Your task to perform on an android device: Open location settings Image 0: 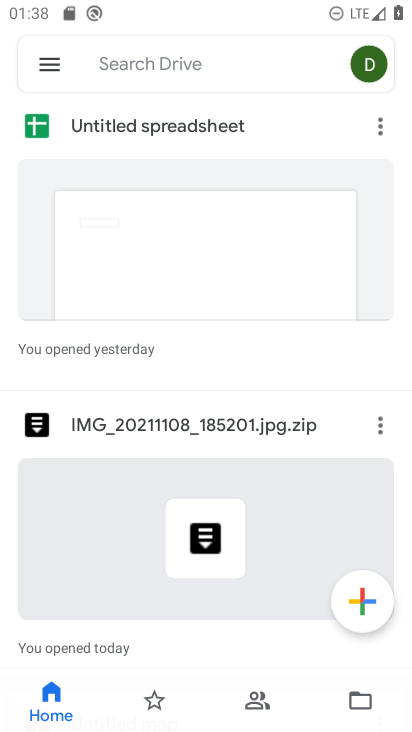
Step 0: press home button
Your task to perform on an android device: Open location settings Image 1: 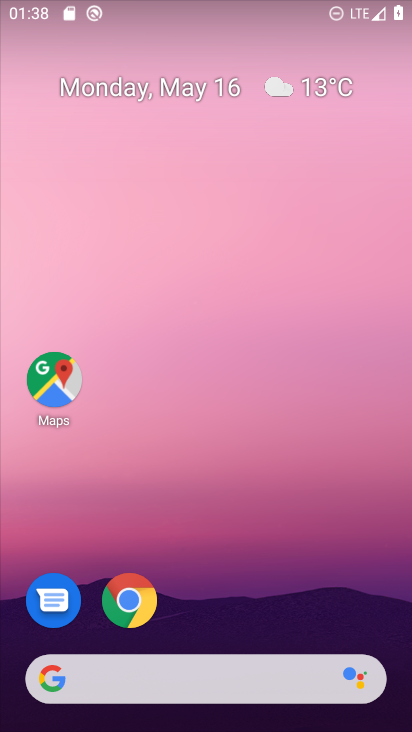
Step 1: drag from (220, 632) to (195, 190)
Your task to perform on an android device: Open location settings Image 2: 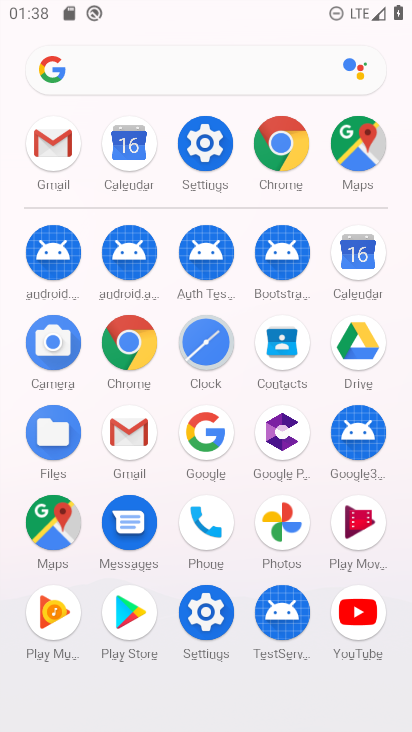
Step 2: click (208, 603)
Your task to perform on an android device: Open location settings Image 3: 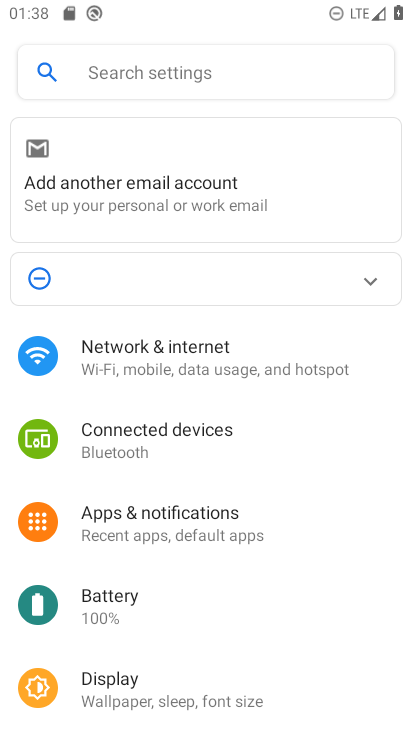
Step 3: drag from (194, 688) to (208, 148)
Your task to perform on an android device: Open location settings Image 4: 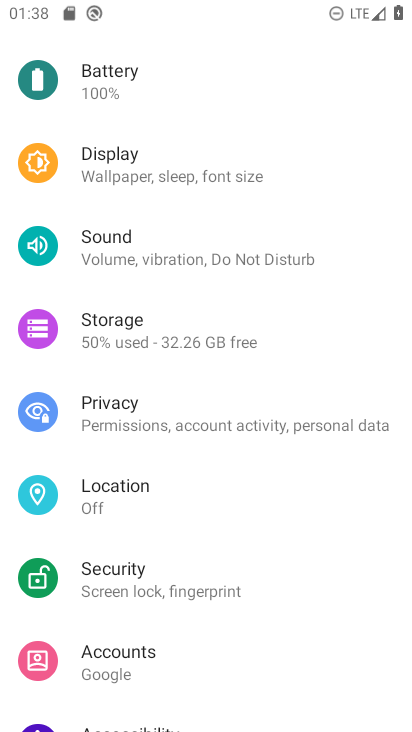
Step 4: click (118, 492)
Your task to perform on an android device: Open location settings Image 5: 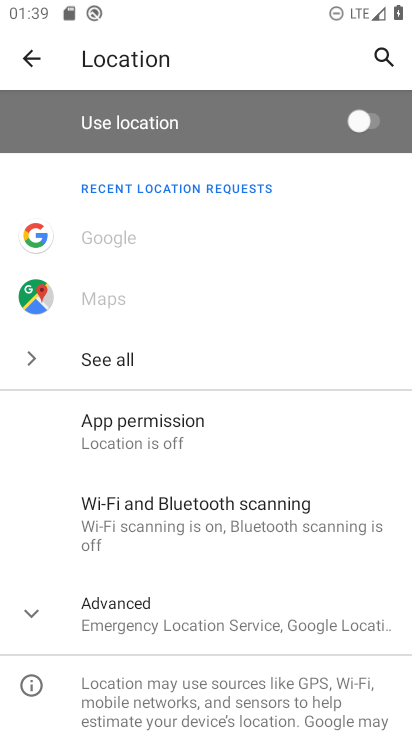
Step 5: click (49, 606)
Your task to perform on an android device: Open location settings Image 6: 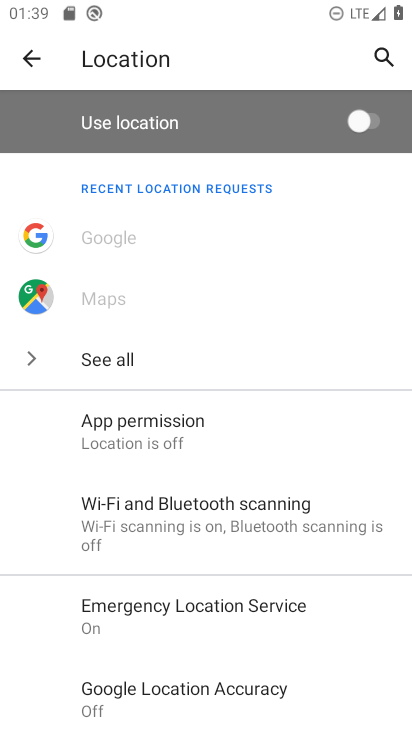
Step 6: drag from (225, 670) to (256, 197)
Your task to perform on an android device: Open location settings Image 7: 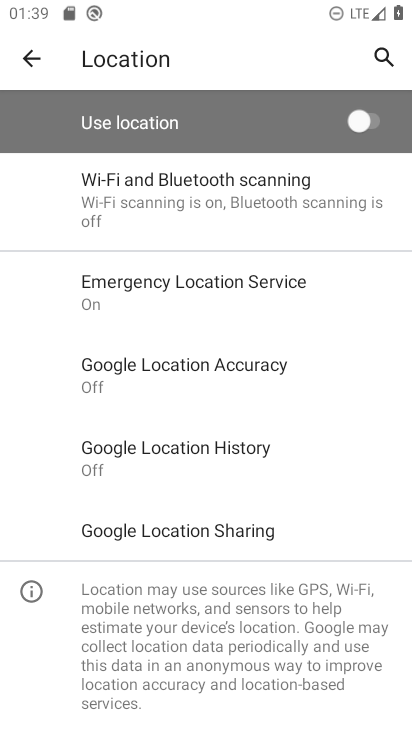
Step 7: click (228, 457)
Your task to perform on an android device: Open location settings Image 8: 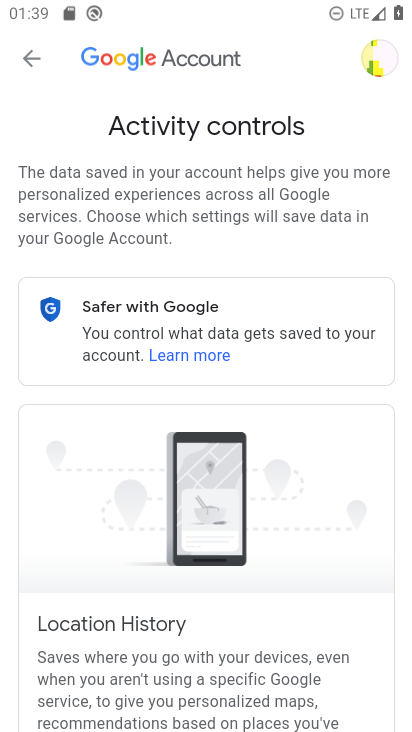
Step 8: task complete